Your task to perform on an android device: show emergency info Image 0: 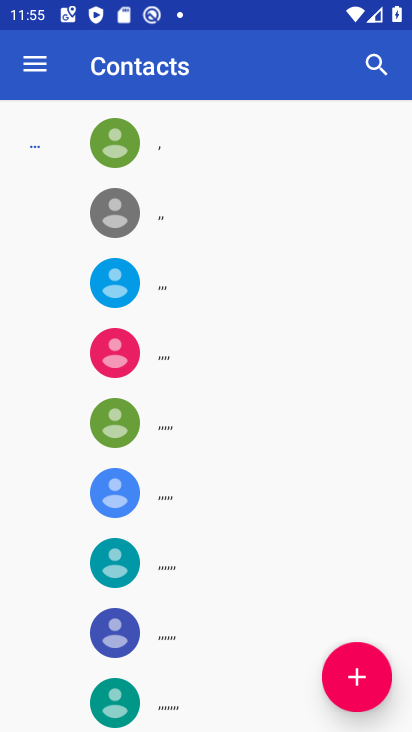
Step 0: press home button
Your task to perform on an android device: show emergency info Image 1: 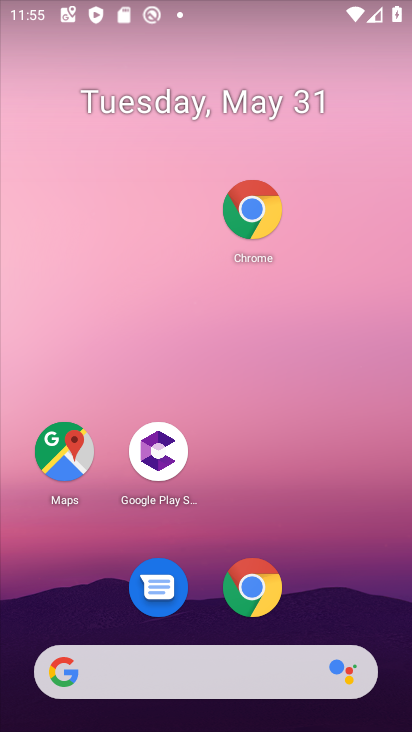
Step 1: drag from (373, 532) to (396, 148)
Your task to perform on an android device: show emergency info Image 2: 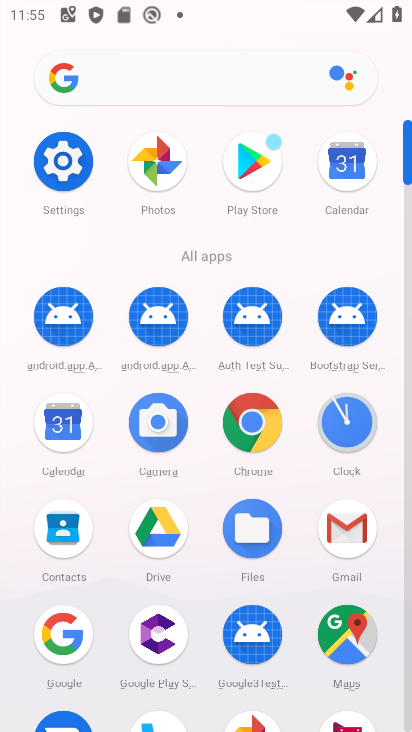
Step 2: click (73, 177)
Your task to perform on an android device: show emergency info Image 3: 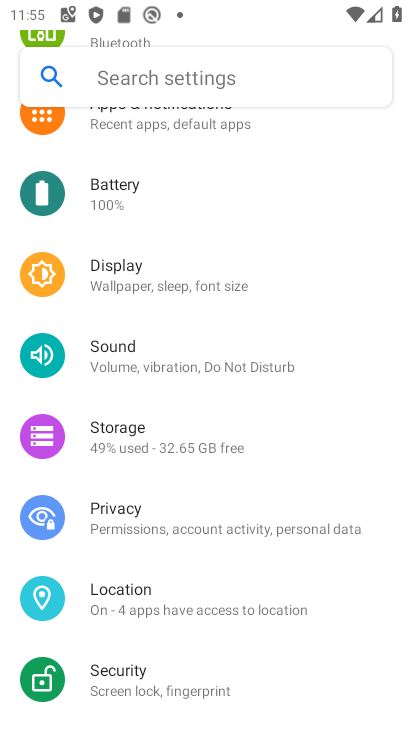
Step 3: drag from (184, 458) to (243, 80)
Your task to perform on an android device: show emergency info Image 4: 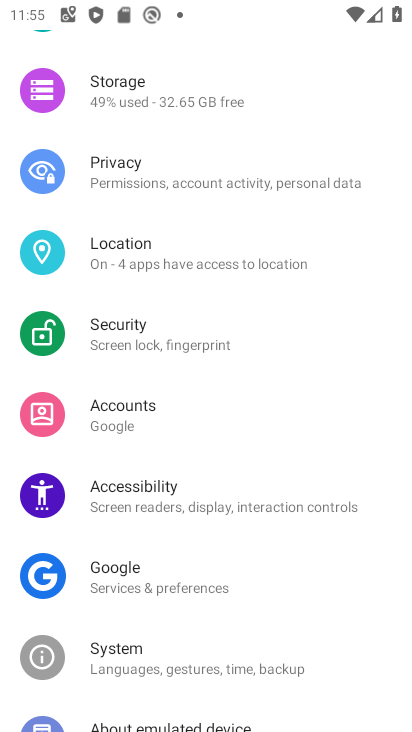
Step 4: drag from (242, 416) to (257, 171)
Your task to perform on an android device: show emergency info Image 5: 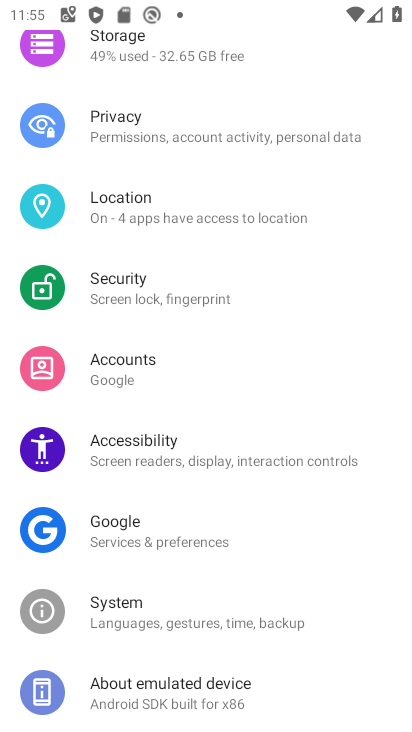
Step 5: drag from (229, 527) to (256, 260)
Your task to perform on an android device: show emergency info Image 6: 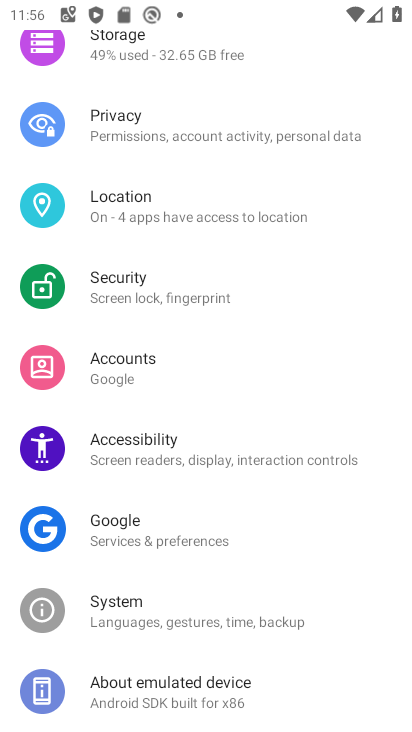
Step 6: click (166, 683)
Your task to perform on an android device: show emergency info Image 7: 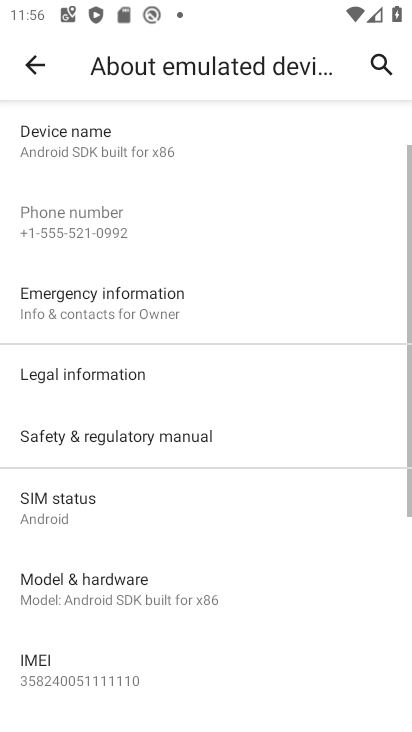
Step 7: click (84, 303)
Your task to perform on an android device: show emergency info Image 8: 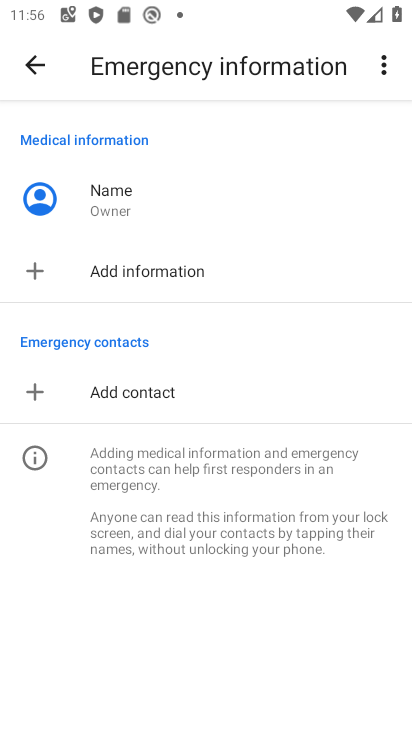
Step 8: task complete